Your task to perform on an android device: turn off location Image 0: 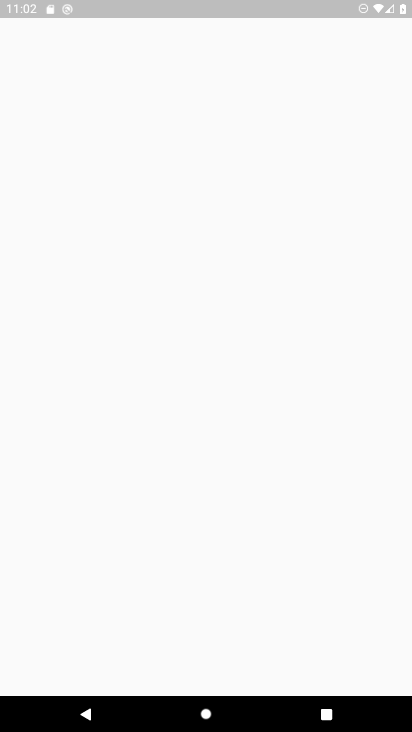
Step 0: press home button
Your task to perform on an android device: turn off location Image 1: 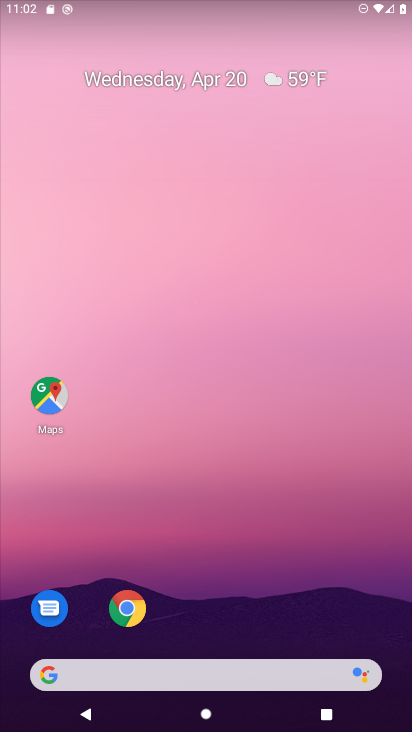
Step 1: drag from (311, 579) to (289, 188)
Your task to perform on an android device: turn off location Image 2: 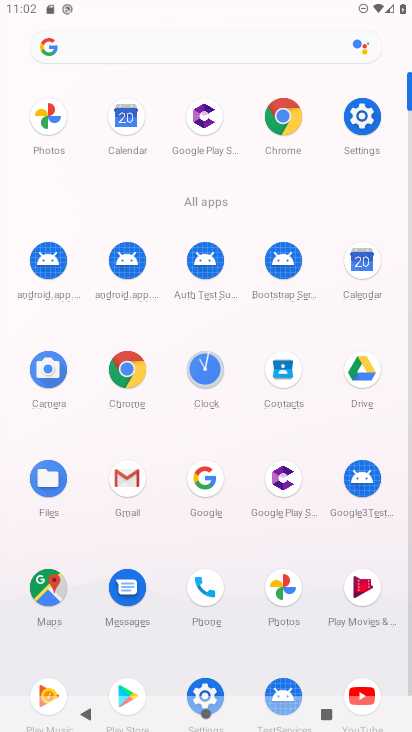
Step 2: click (366, 116)
Your task to perform on an android device: turn off location Image 3: 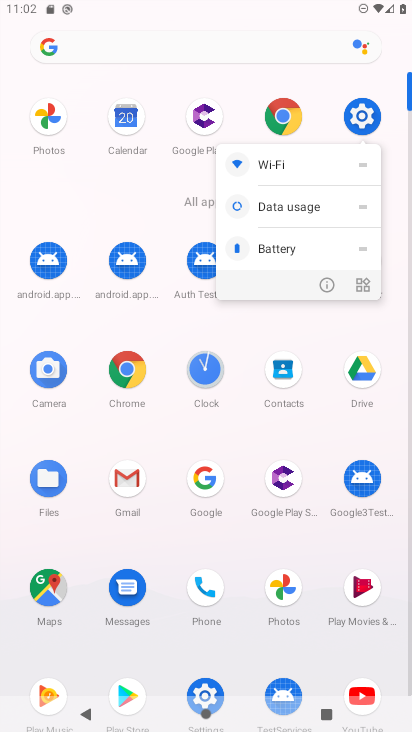
Step 3: click (357, 121)
Your task to perform on an android device: turn off location Image 4: 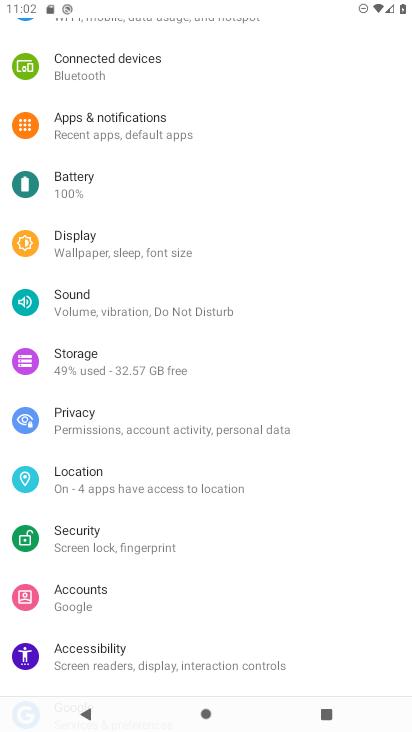
Step 4: click (175, 492)
Your task to perform on an android device: turn off location Image 5: 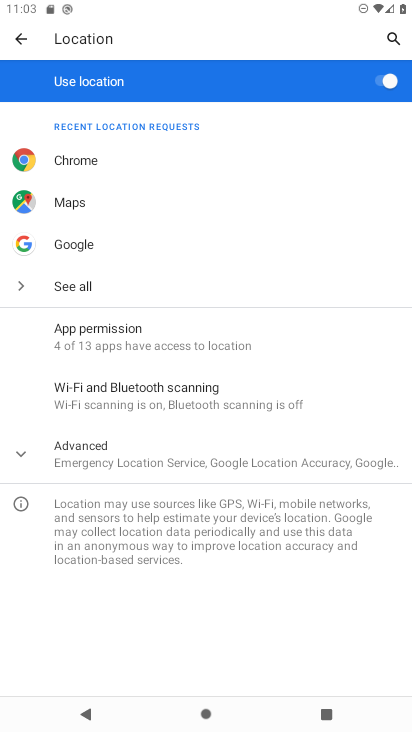
Step 5: task complete